Your task to perform on an android device: Open CNN.com Image 0: 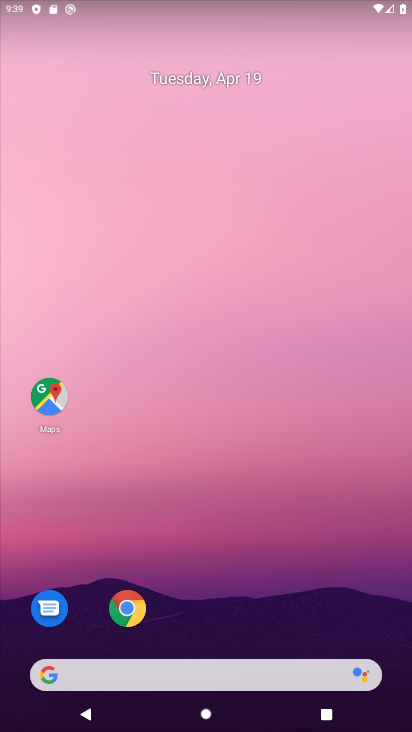
Step 0: click (127, 606)
Your task to perform on an android device: Open CNN.com Image 1: 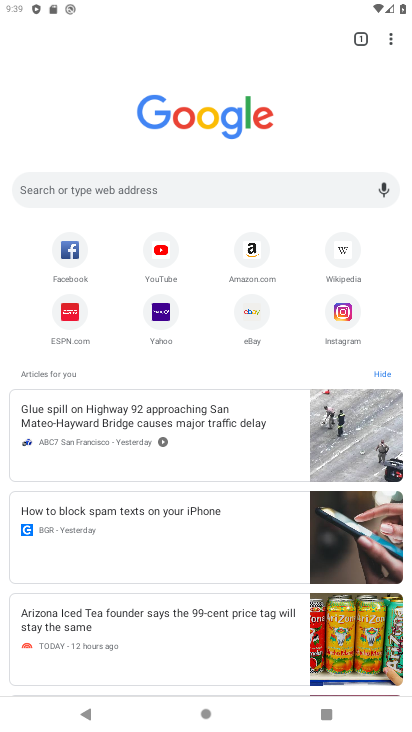
Step 1: click (225, 190)
Your task to perform on an android device: Open CNN.com Image 2: 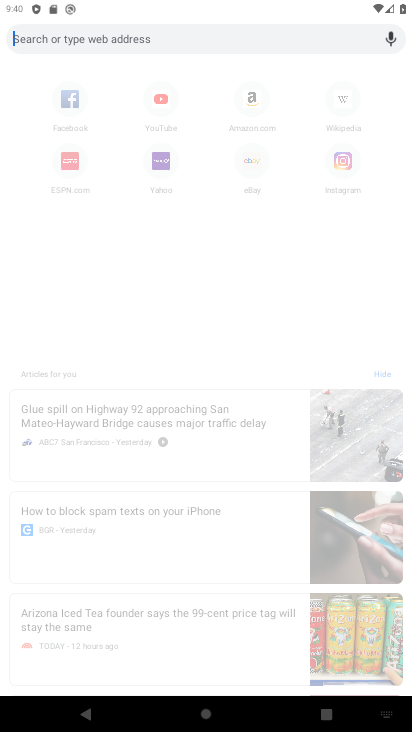
Step 2: type "CNN,com"
Your task to perform on an android device: Open CNN.com Image 3: 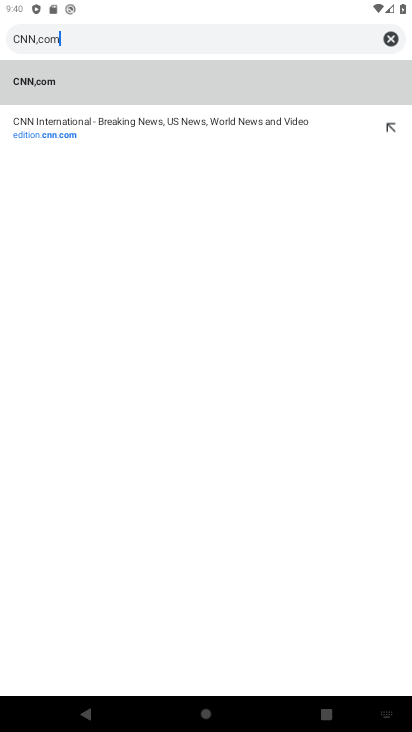
Step 3: type ""
Your task to perform on an android device: Open CNN.com Image 4: 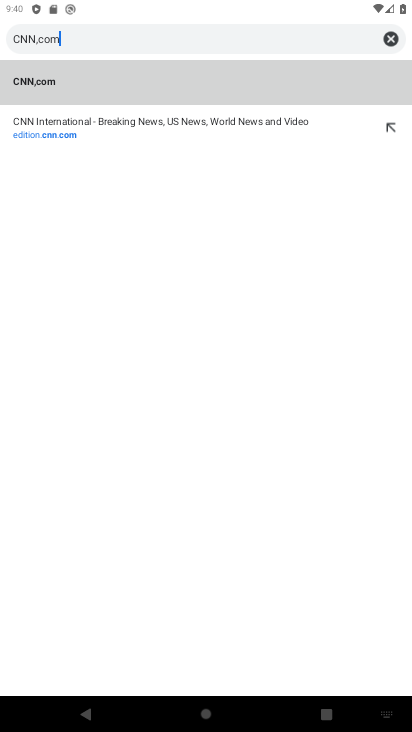
Step 4: click (37, 82)
Your task to perform on an android device: Open CNN.com Image 5: 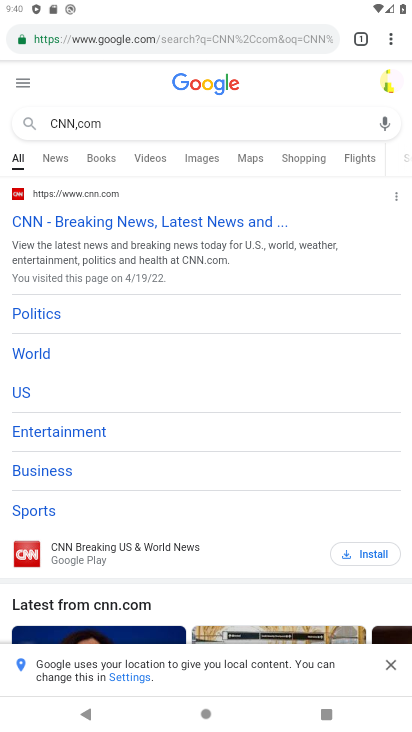
Step 5: click (247, 220)
Your task to perform on an android device: Open CNN.com Image 6: 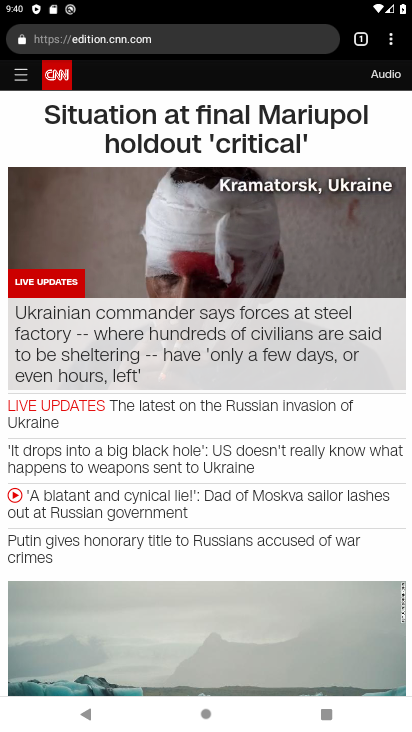
Step 6: task complete